Your task to perform on an android device: What's the weather going to be tomorrow? Image 0: 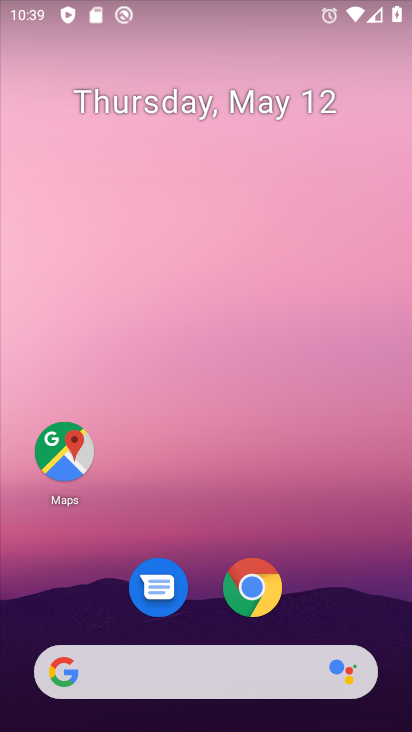
Step 0: drag from (385, 451) to (369, 97)
Your task to perform on an android device: What's the weather going to be tomorrow? Image 1: 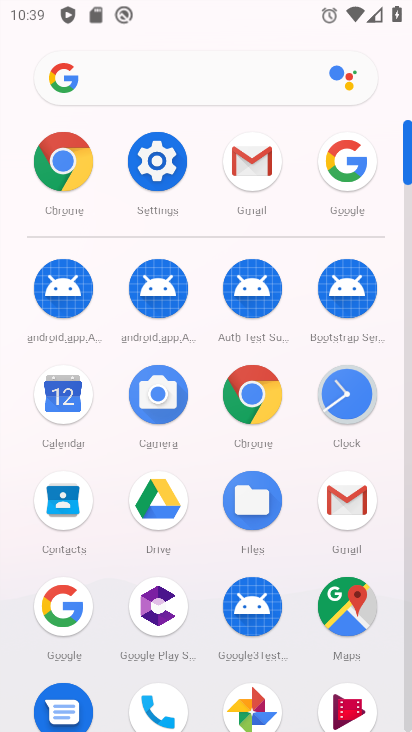
Step 1: click (67, 612)
Your task to perform on an android device: What's the weather going to be tomorrow? Image 2: 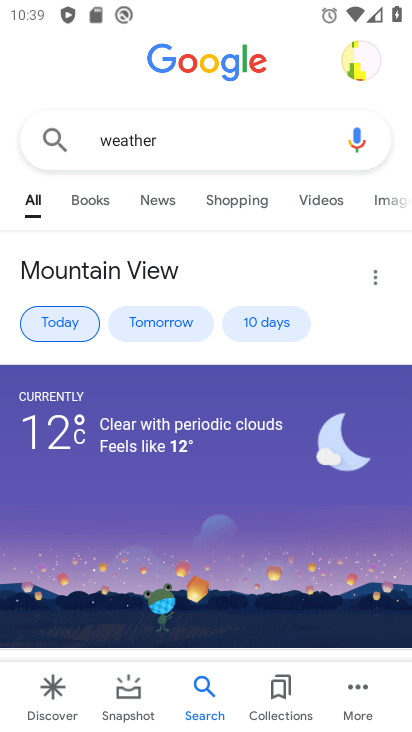
Step 2: task complete